Your task to perform on an android device: Search for Italian restaurants on Maps Image 0: 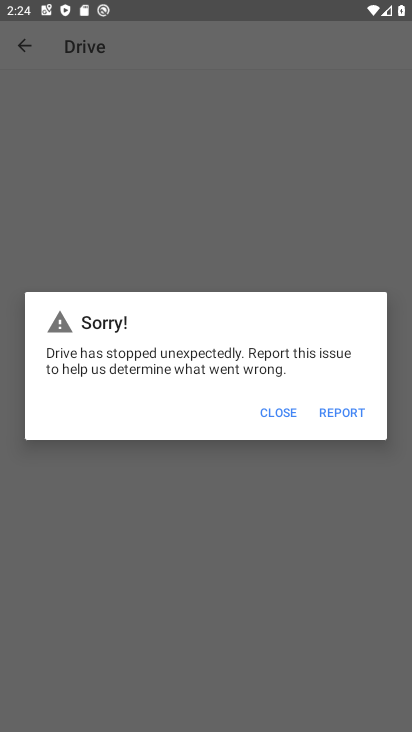
Step 0: press home button
Your task to perform on an android device: Search for Italian restaurants on Maps Image 1: 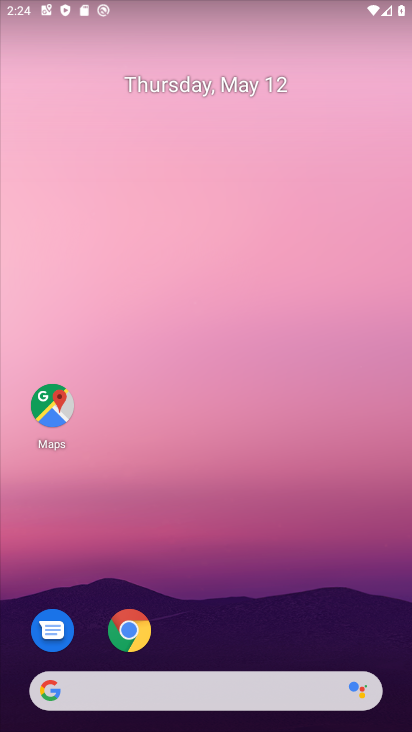
Step 1: click (48, 409)
Your task to perform on an android device: Search for Italian restaurants on Maps Image 2: 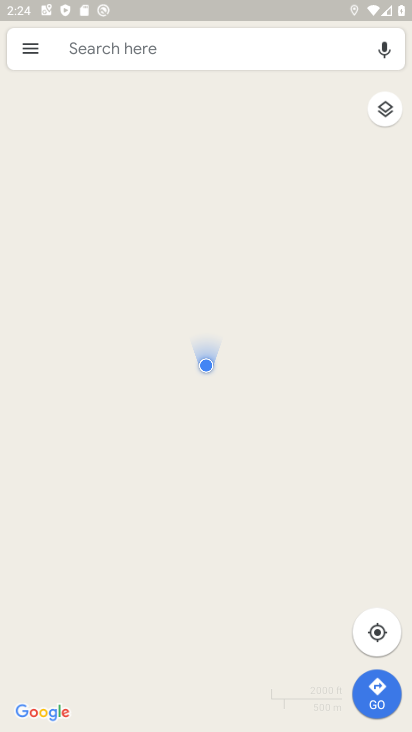
Step 2: click (229, 53)
Your task to perform on an android device: Search for Italian restaurants on Maps Image 3: 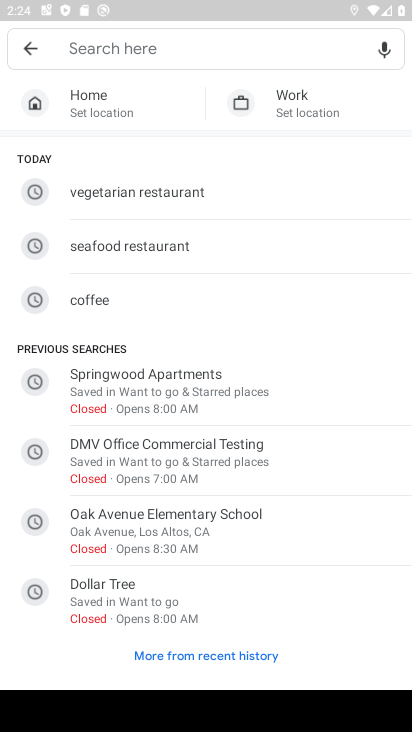
Step 3: type "Italian restaurants"
Your task to perform on an android device: Search for Italian restaurants on Maps Image 4: 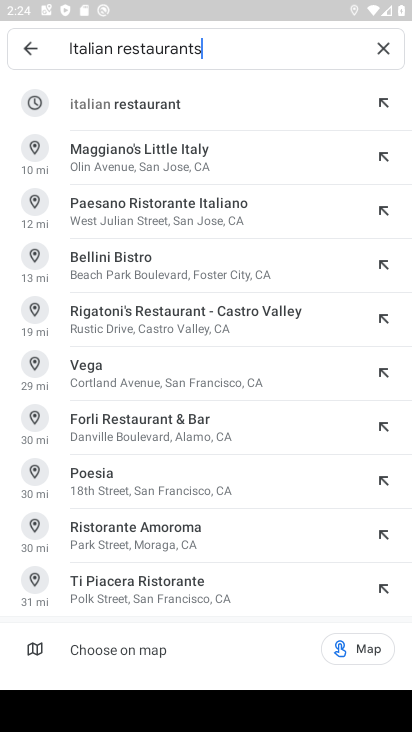
Step 4: click (105, 100)
Your task to perform on an android device: Search for Italian restaurants on Maps Image 5: 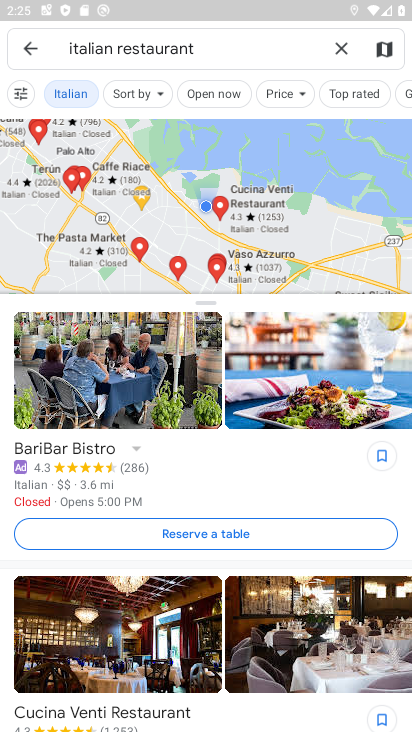
Step 5: task complete